Your task to perform on an android device: search for starred emails in the gmail app Image 0: 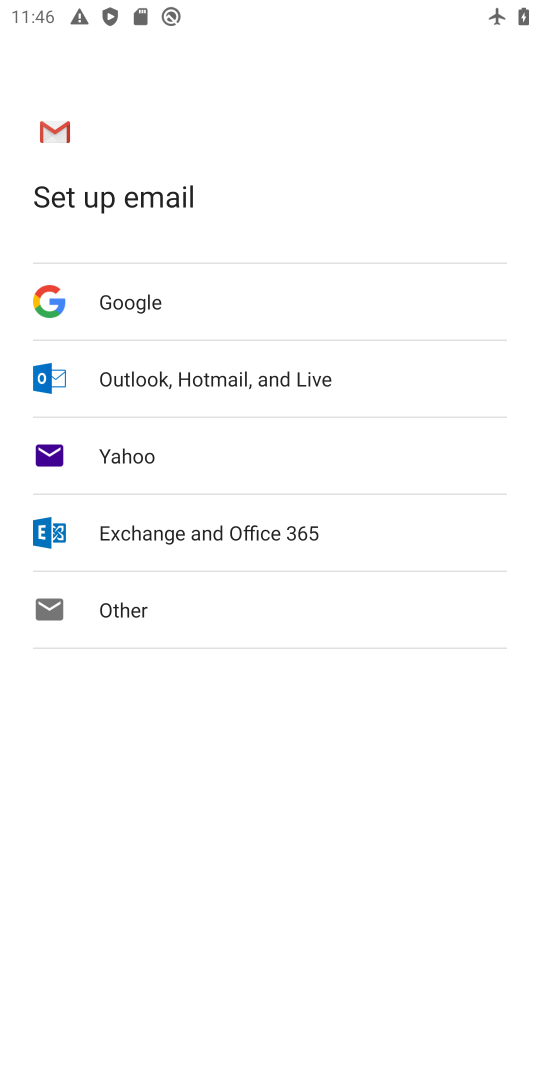
Step 0: press home button
Your task to perform on an android device: search for starred emails in the gmail app Image 1: 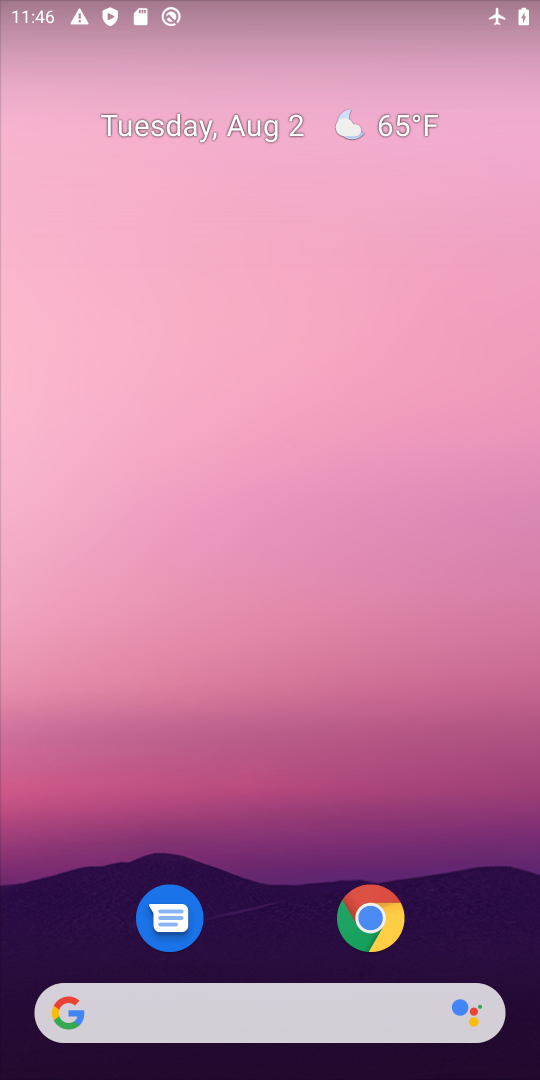
Step 1: drag from (319, 703) to (231, 64)
Your task to perform on an android device: search for starred emails in the gmail app Image 2: 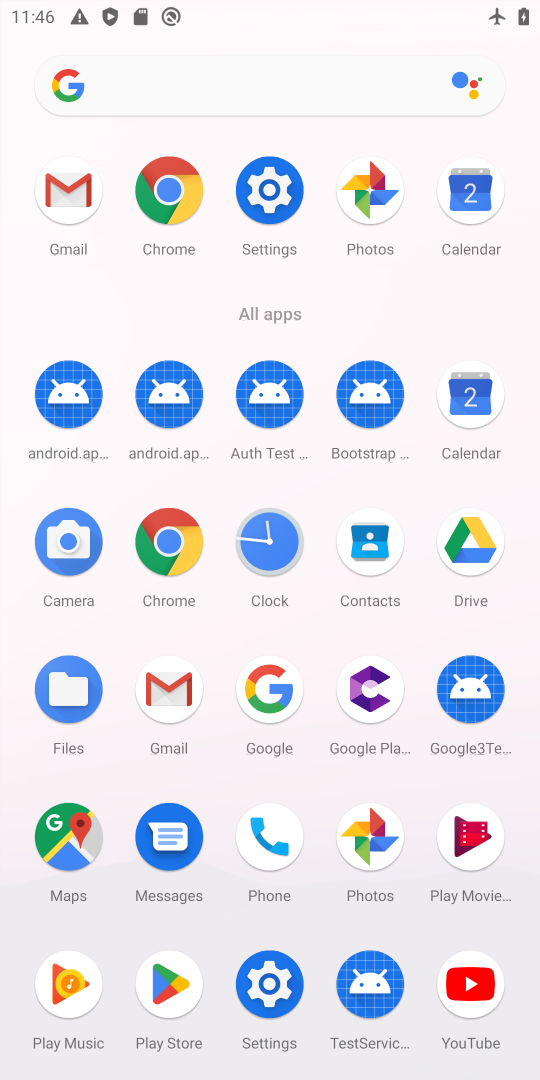
Step 2: click (61, 185)
Your task to perform on an android device: search for starred emails in the gmail app Image 3: 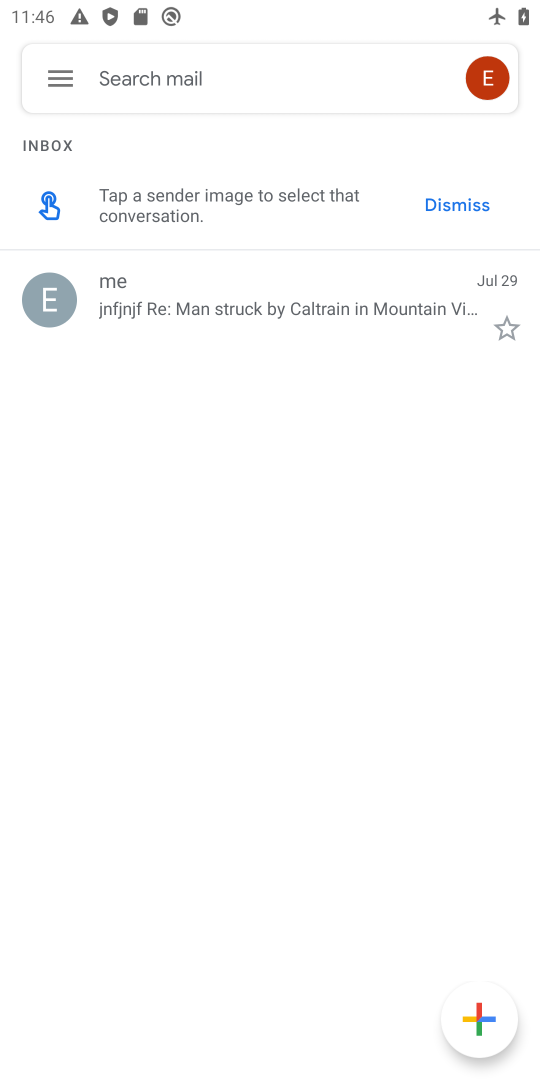
Step 3: click (66, 75)
Your task to perform on an android device: search for starred emails in the gmail app Image 4: 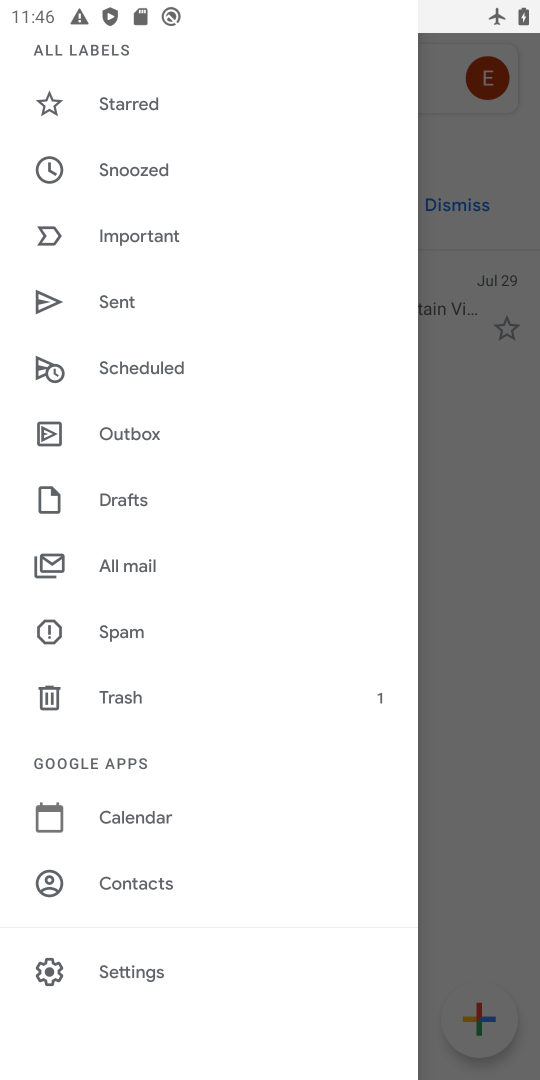
Step 4: click (120, 103)
Your task to perform on an android device: search for starred emails in the gmail app Image 5: 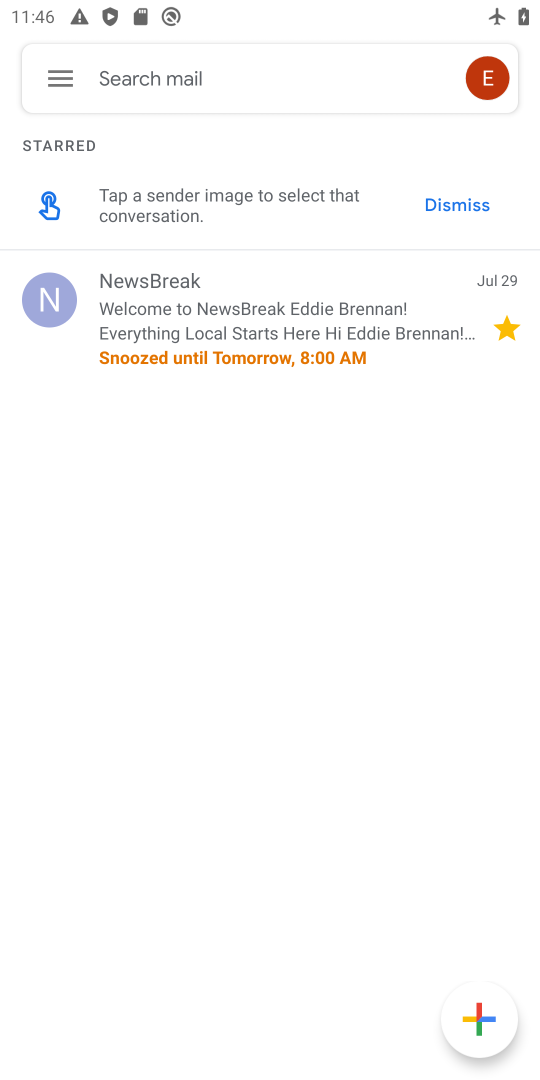
Step 5: task complete